Your task to perform on an android device: Open location settings Image 0: 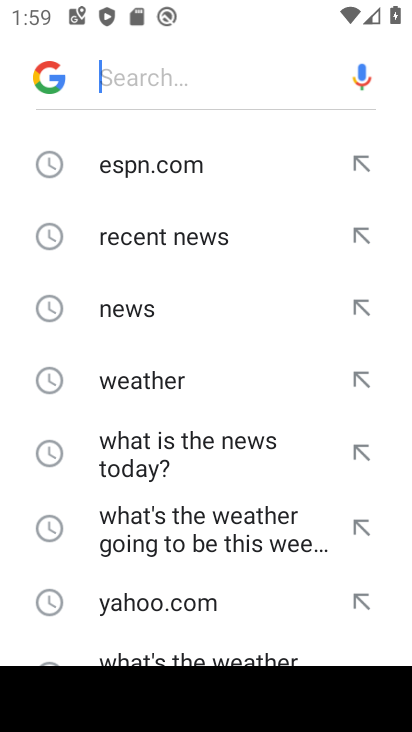
Step 0: press home button
Your task to perform on an android device: Open location settings Image 1: 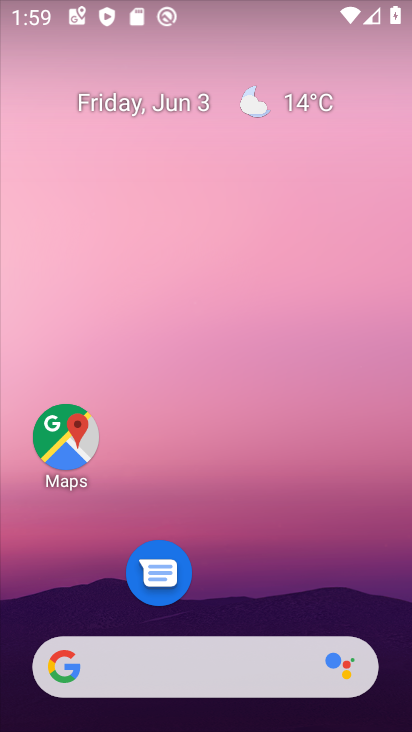
Step 1: drag from (316, 551) to (362, 35)
Your task to perform on an android device: Open location settings Image 2: 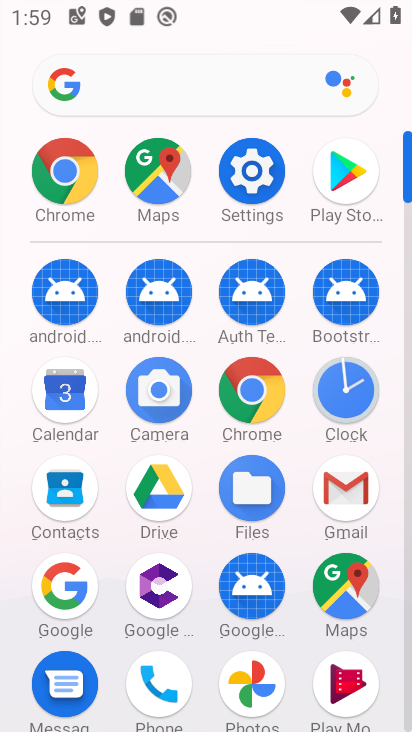
Step 2: click (250, 176)
Your task to perform on an android device: Open location settings Image 3: 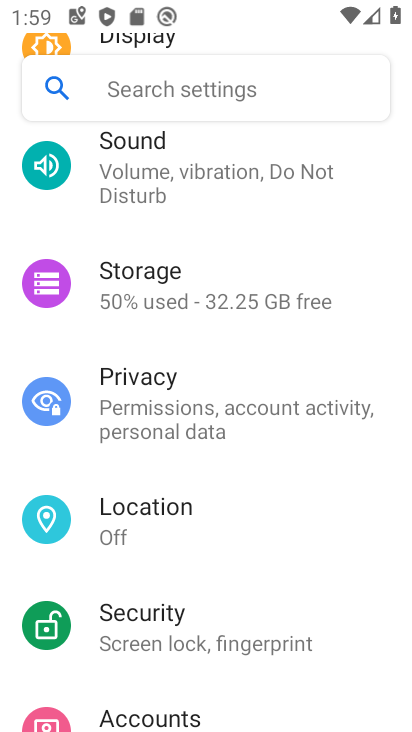
Step 3: click (199, 522)
Your task to perform on an android device: Open location settings Image 4: 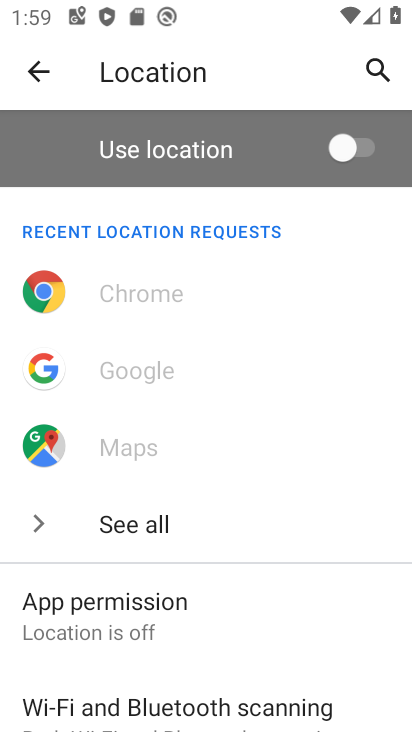
Step 4: task complete